Your task to perform on an android device: toggle priority inbox in the gmail app Image 0: 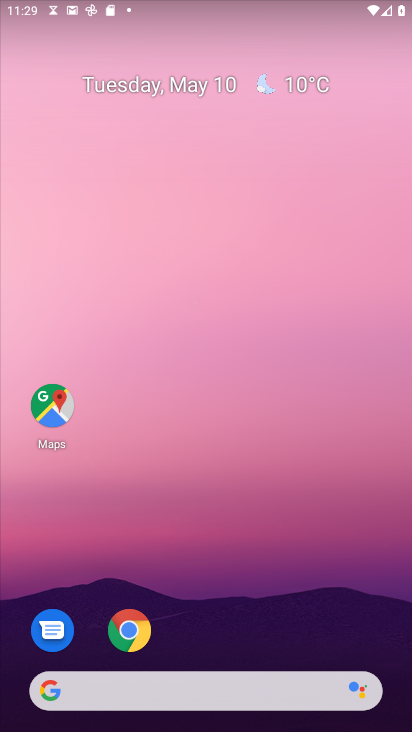
Step 0: drag from (227, 652) to (313, 75)
Your task to perform on an android device: toggle priority inbox in the gmail app Image 1: 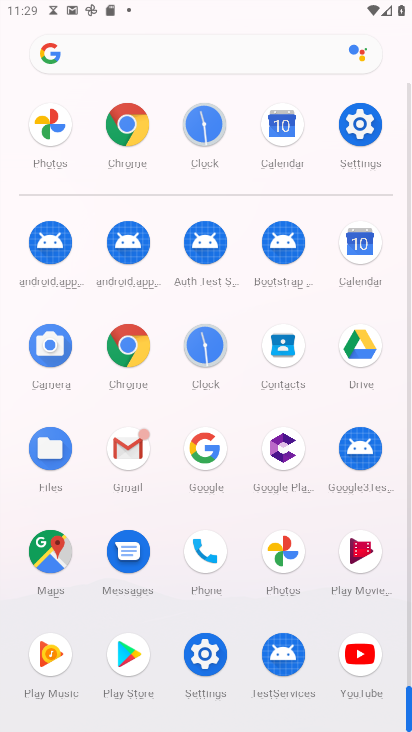
Step 1: click (132, 449)
Your task to perform on an android device: toggle priority inbox in the gmail app Image 2: 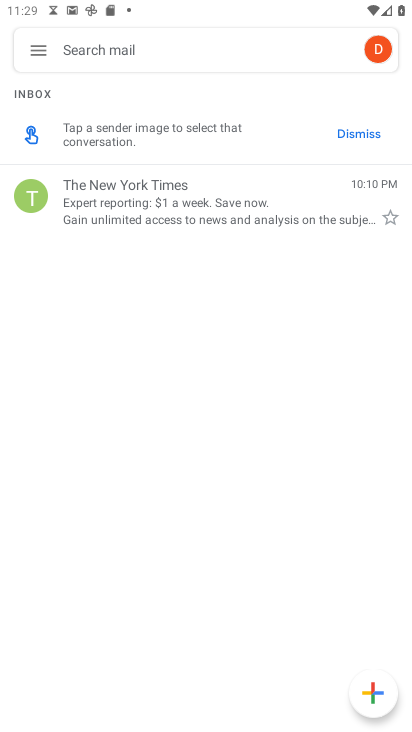
Step 2: click (36, 45)
Your task to perform on an android device: toggle priority inbox in the gmail app Image 3: 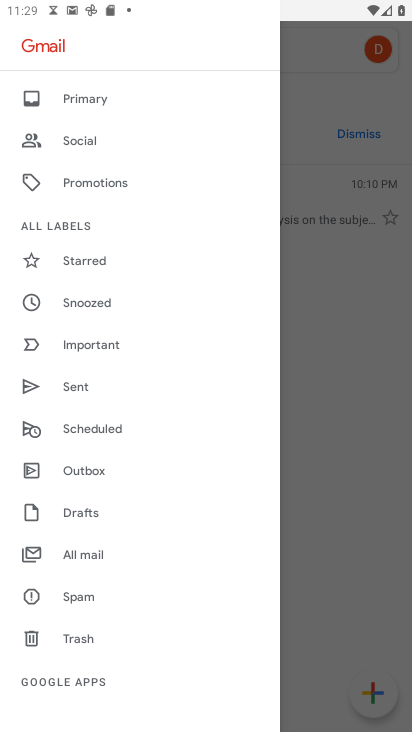
Step 3: drag from (138, 597) to (166, 271)
Your task to perform on an android device: toggle priority inbox in the gmail app Image 4: 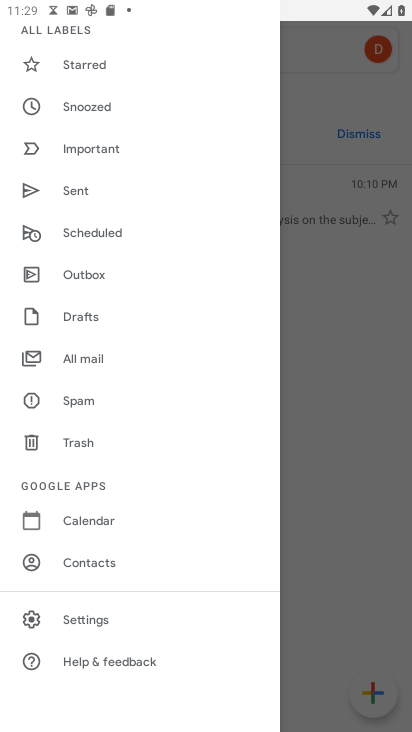
Step 4: click (98, 618)
Your task to perform on an android device: toggle priority inbox in the gmail app Image 5: 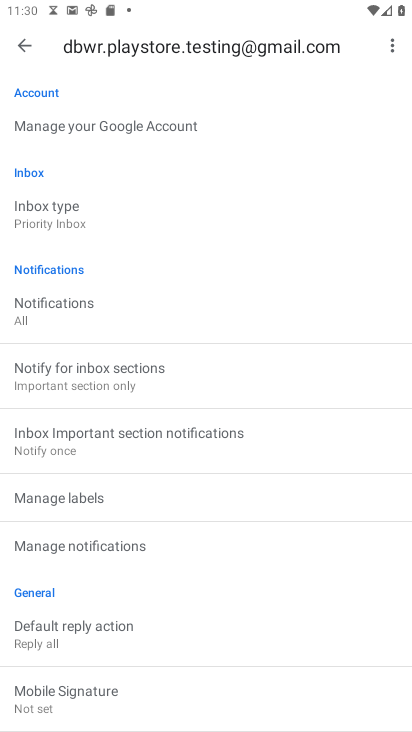
Step 5: click (56, 209)
Your task to perform on an android device: toggle priority inbox in the gmail app Image 6: 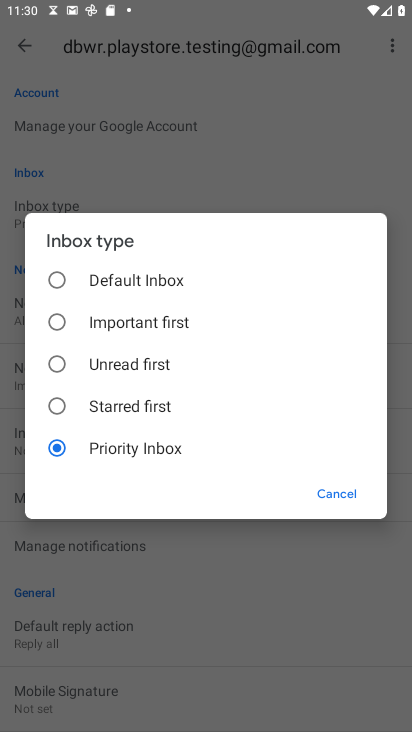
Step 6: click (50, 278)
Your task to perform on an android device: toggle priority inbox in the gmail app Image 7: 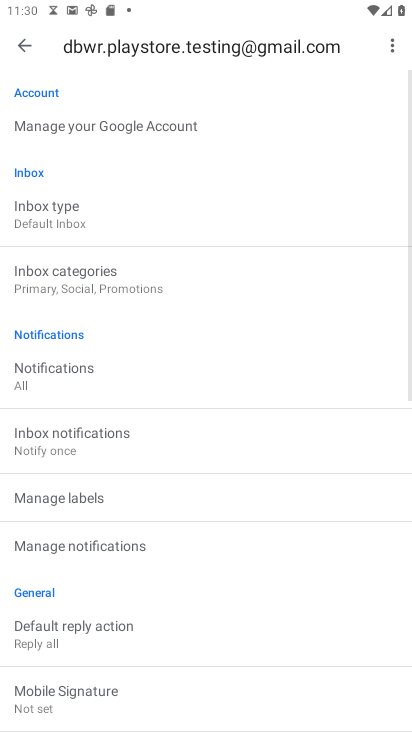
Step 7: task complete